Your task to perform on an android device: install app "Cash App" Image 0: 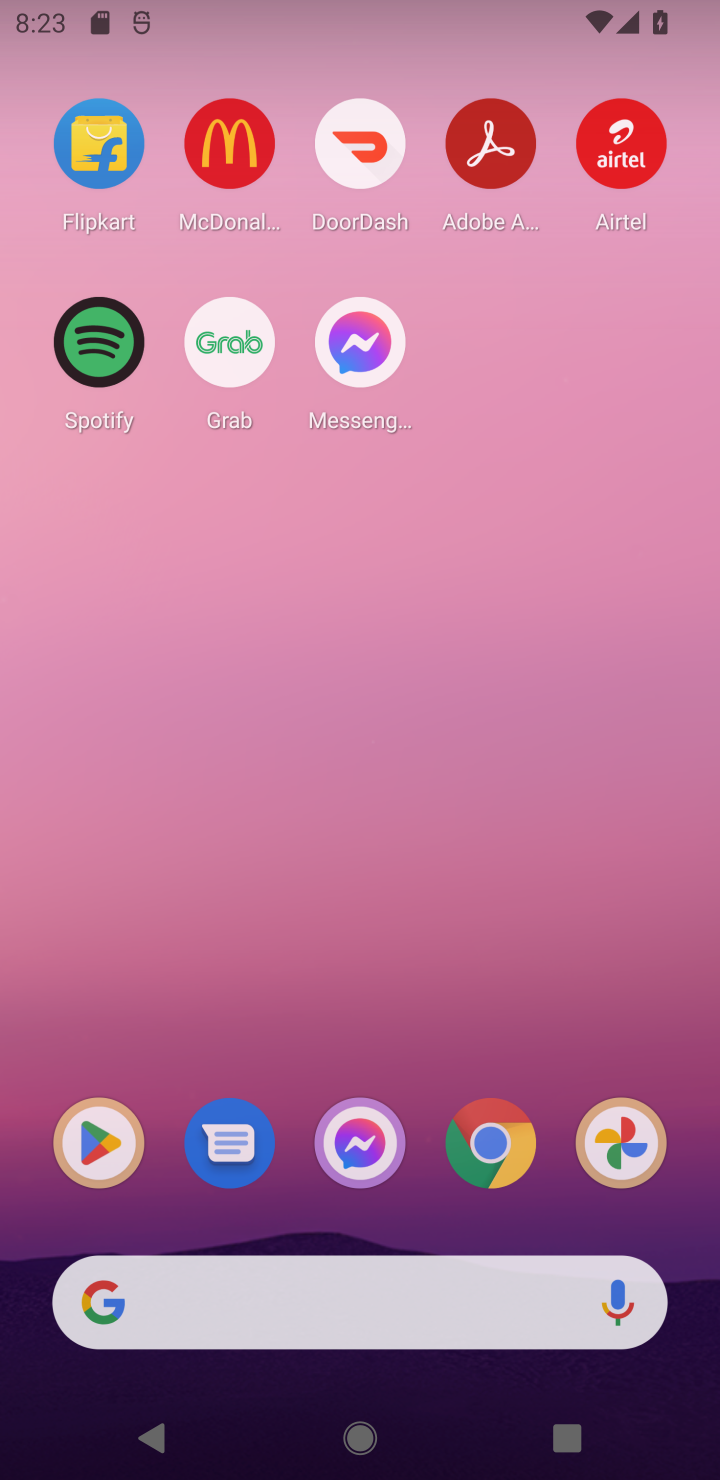
Step 0: press home button
Your task to perform on an android device: install app "Cash App" Image 1: 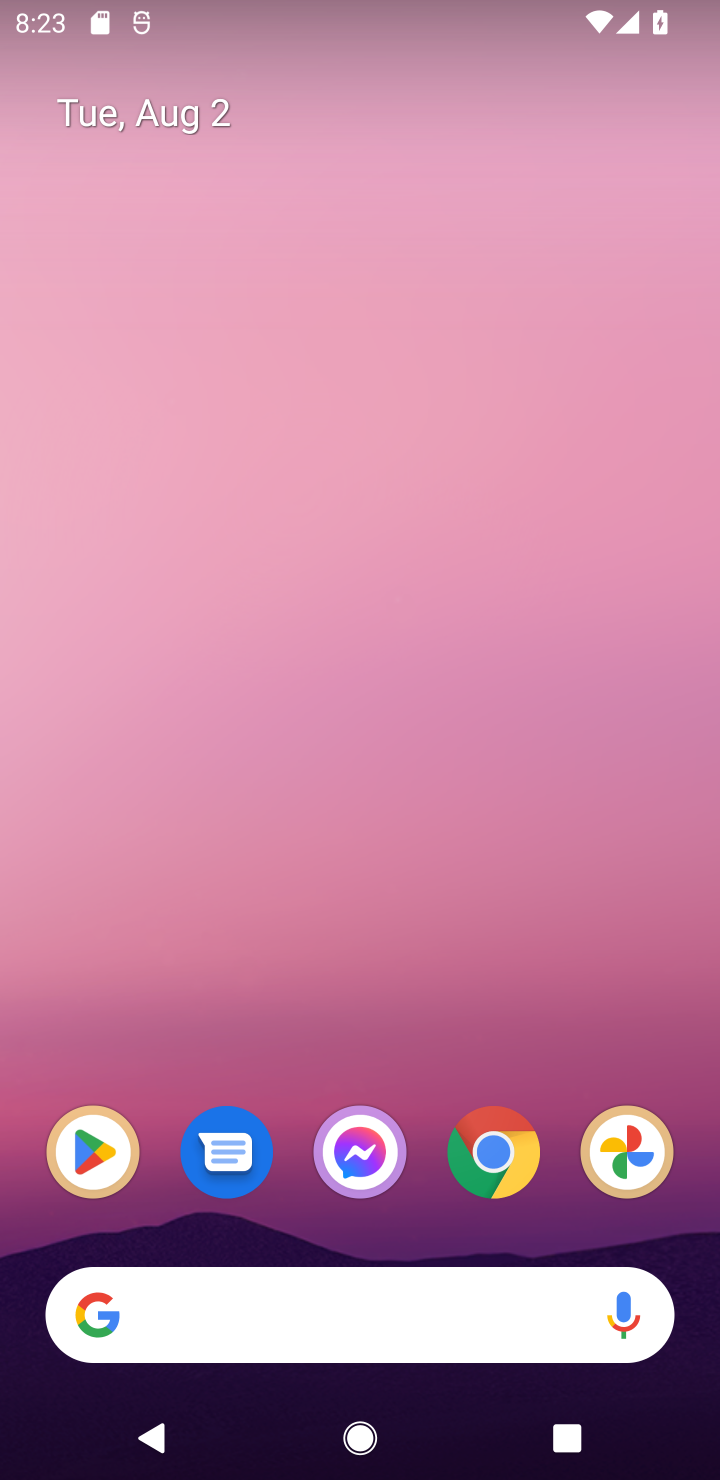
Step 1: click (81, 1135)
Your task to perform on an android device: install app "Cash App" Image 2: 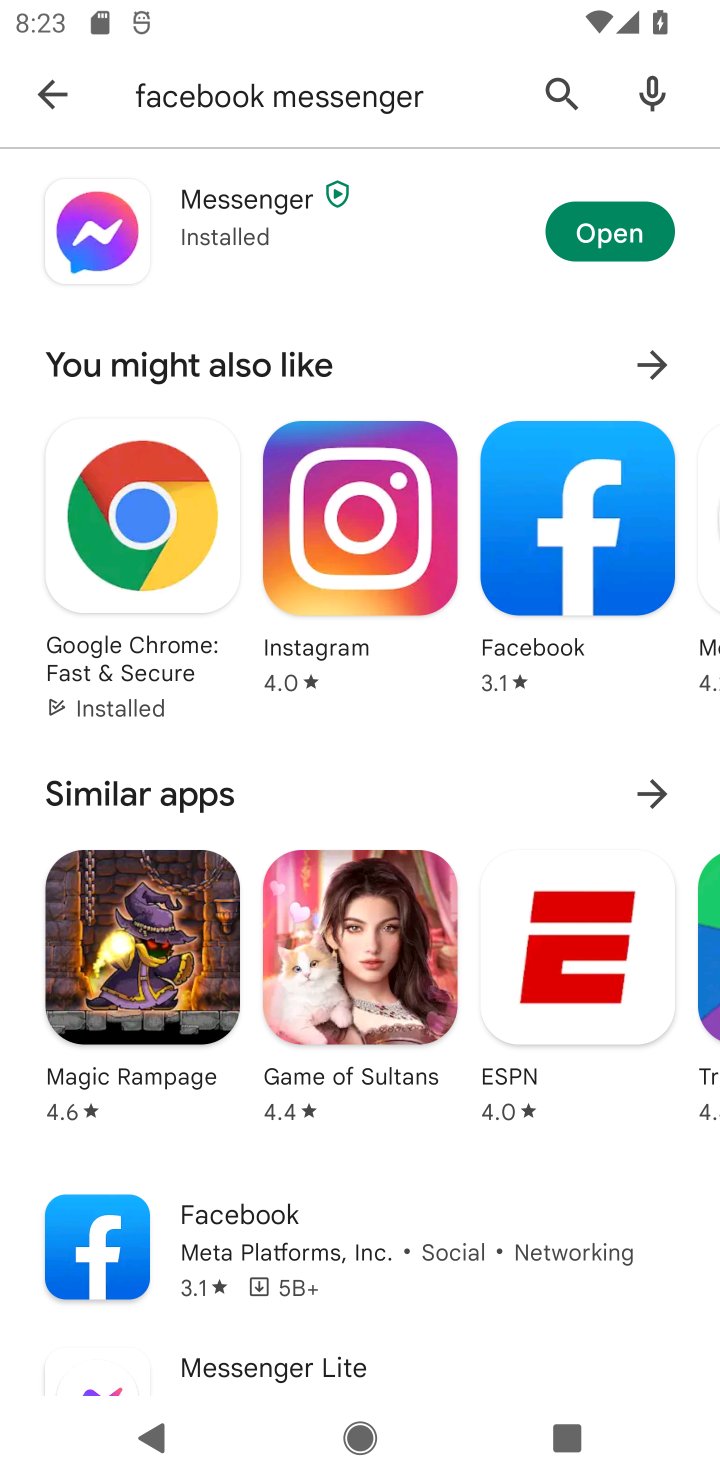
Step 2: click (48, 90)
Your task to perform on an android device: install app "Cash App" Image 3: 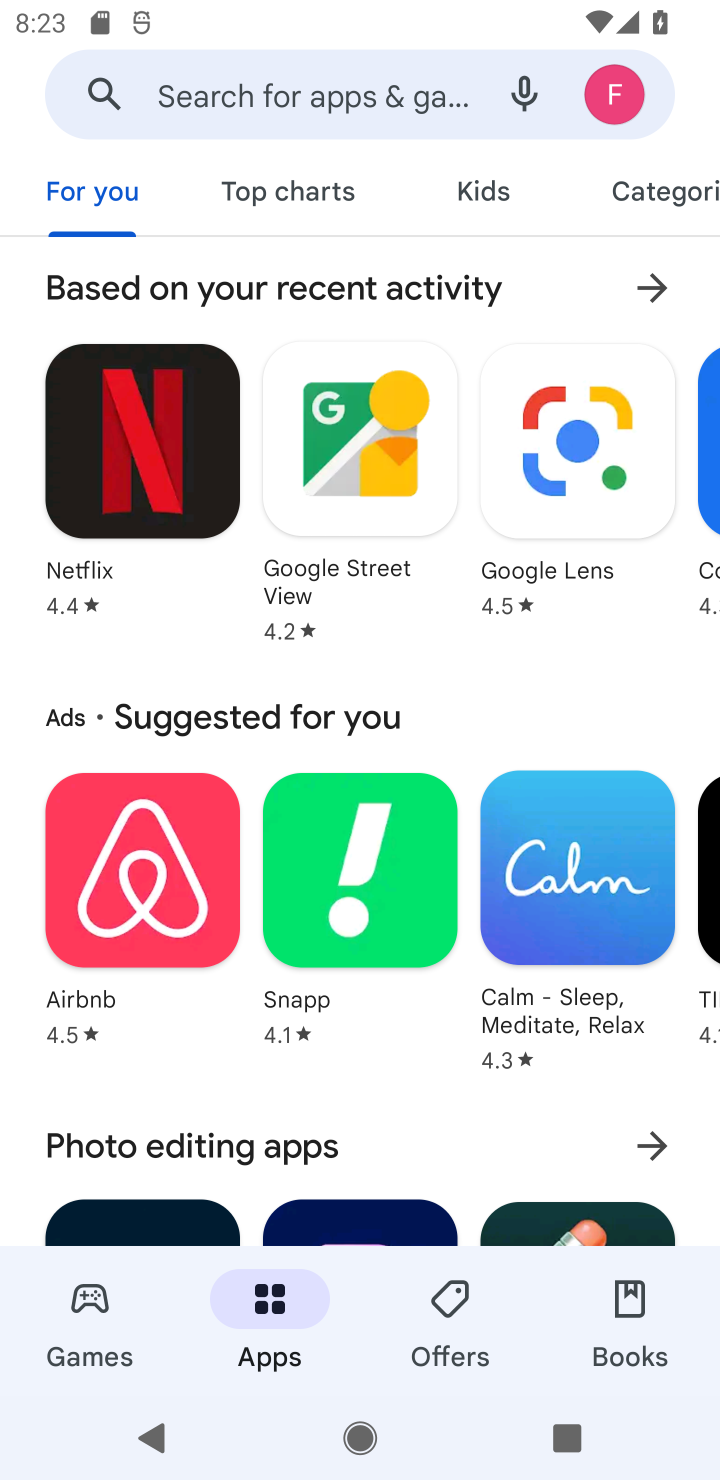
Step 3: click (385, 96)
Your task to perform on an android device: install app "Cash App" Image 4: 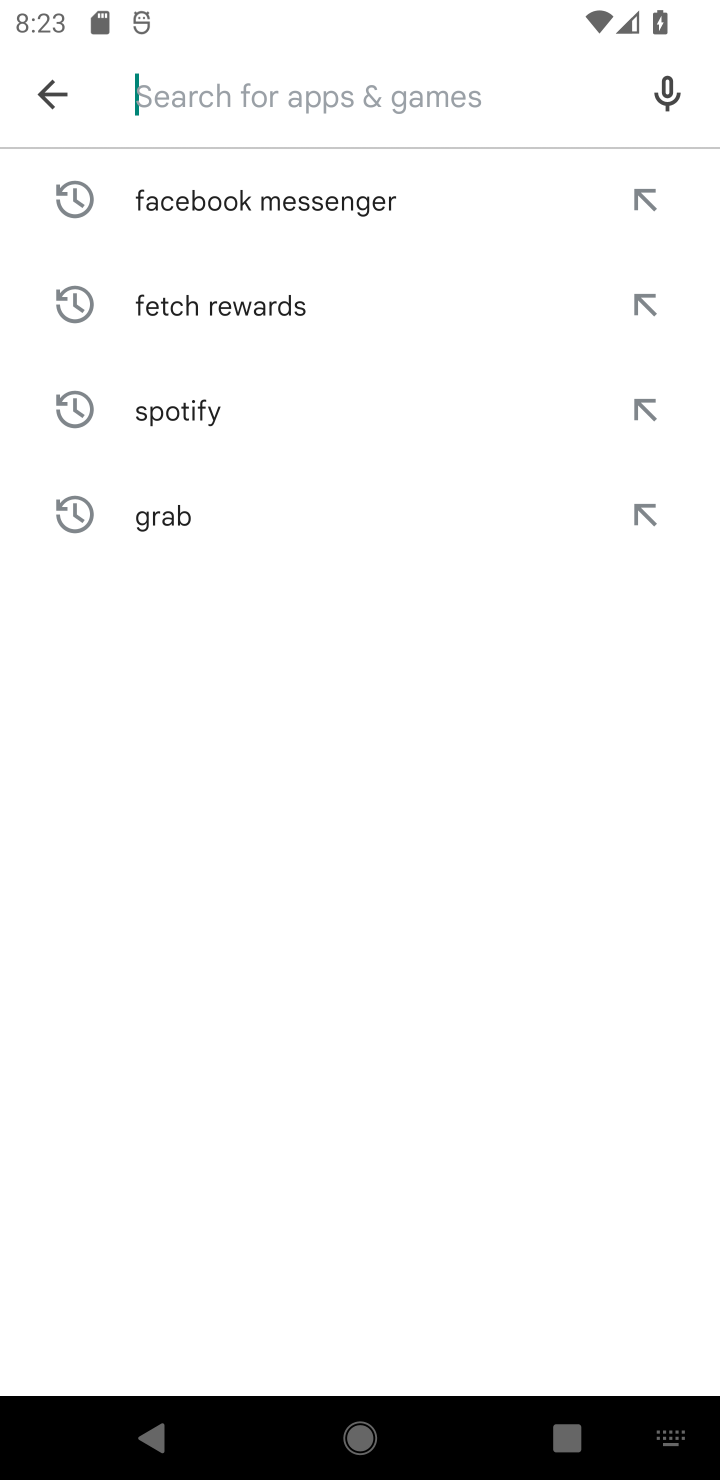
Step 4: type "Cash App"
Your task to perform on an android device: install app "Cash App" Image 5: 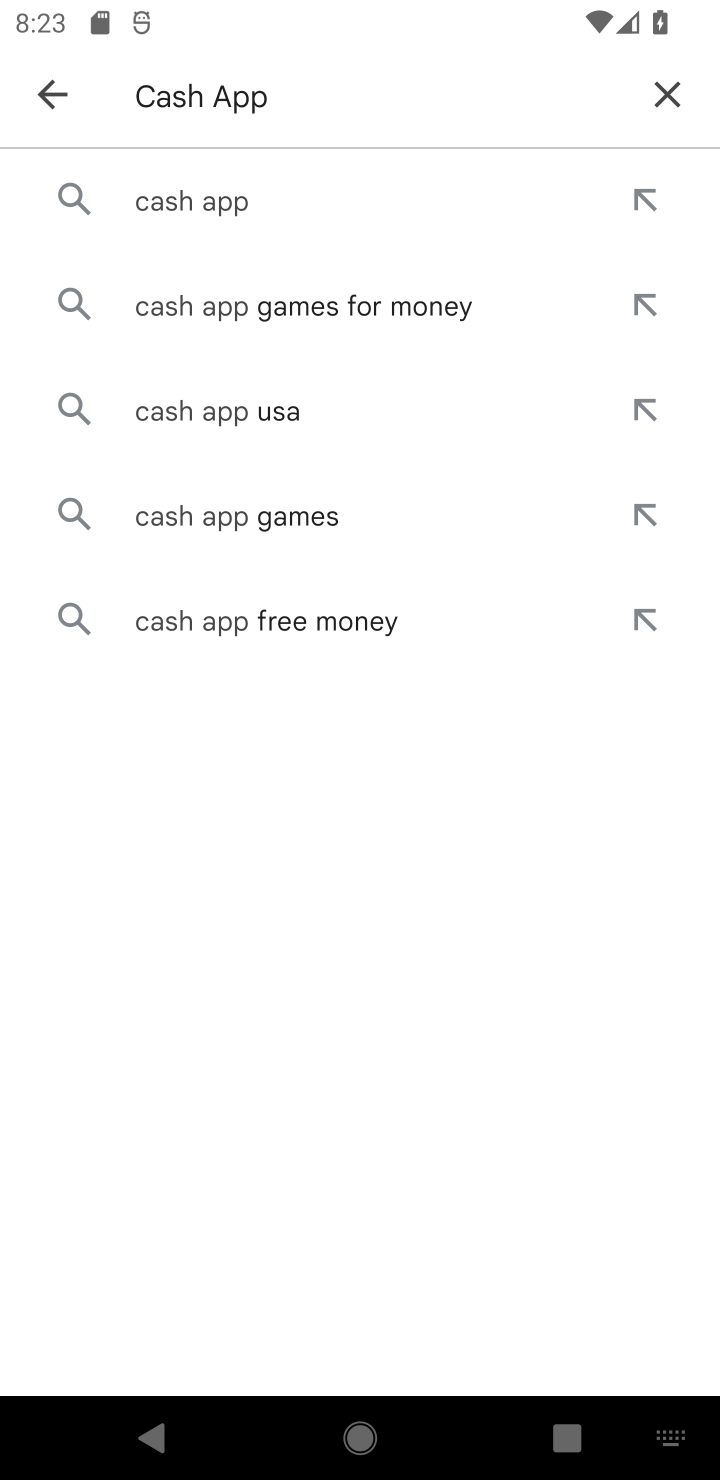
Step 5: click (170, 208)
Your task to perform on an android device: install app "Cash App" Image 6: 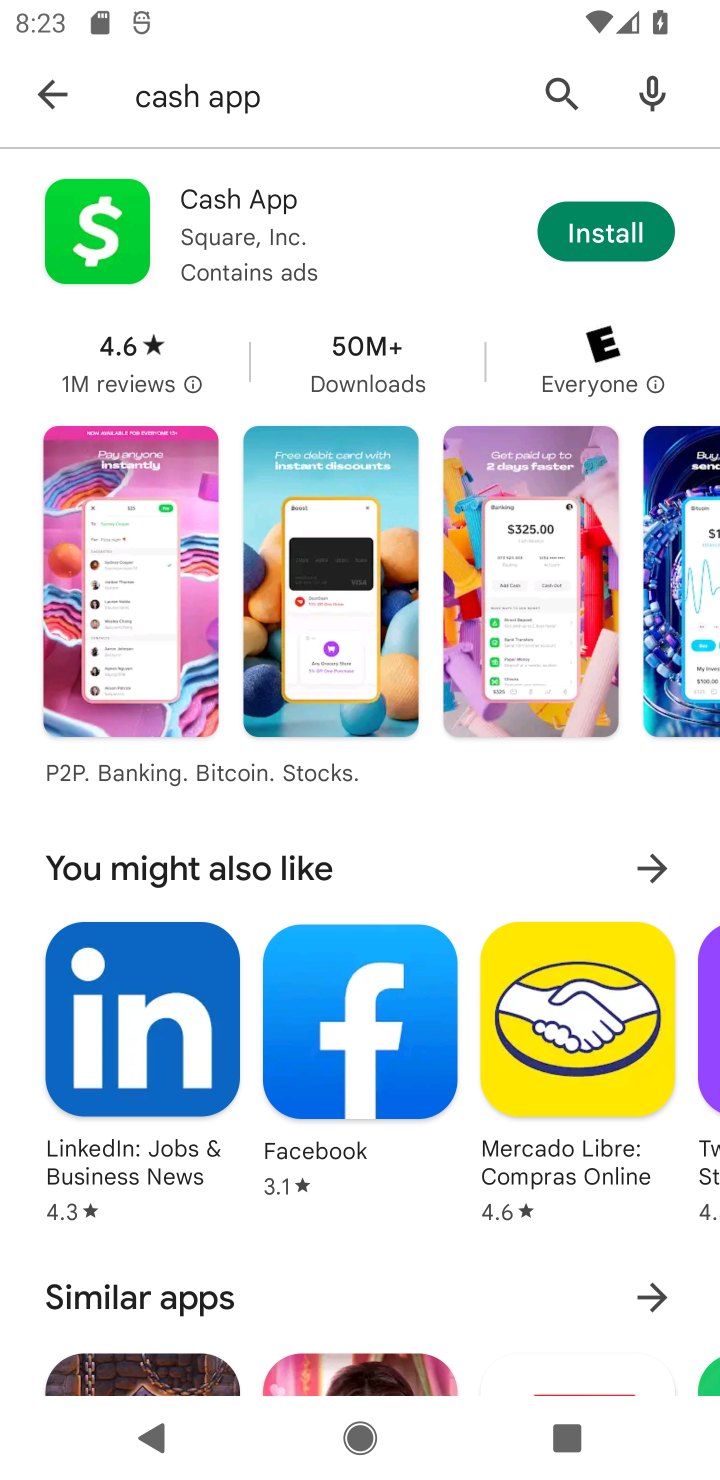
Step 6: click (615, 222)
Your task to perform on an android device: install app "Cash App" Image 7: 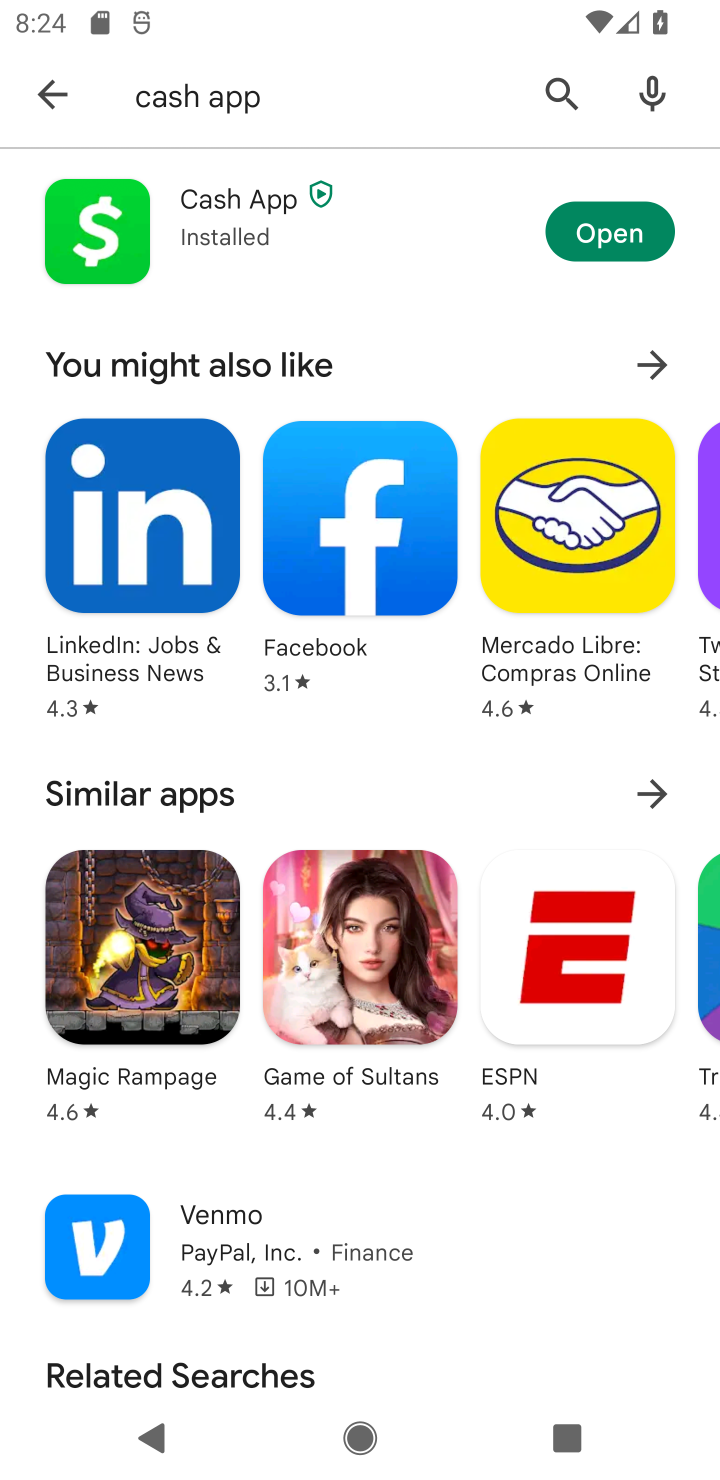
Step 7: click (618, 252)
Your task to perform on an android device: install app "Cash App" Image 8: 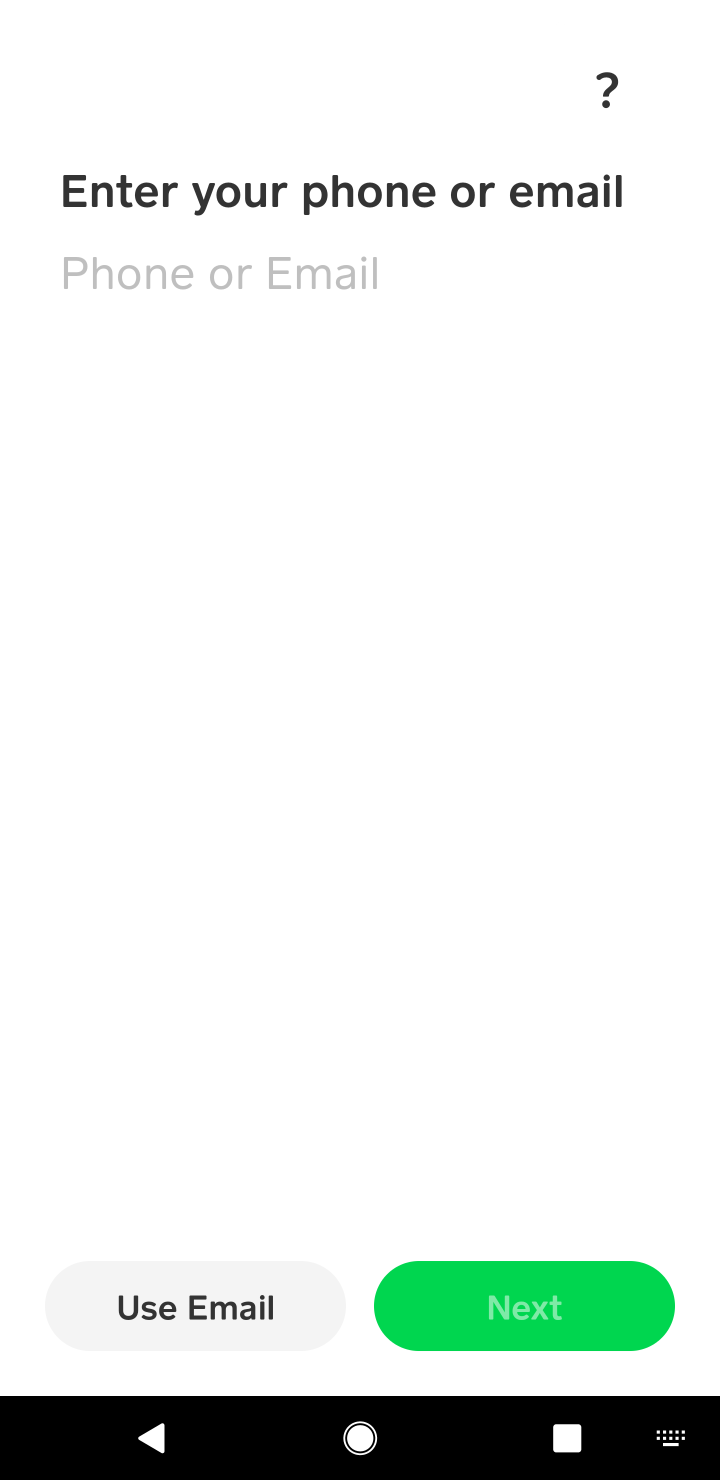
Step 8: task complete